Your task to perform on an android device: install app "Skype" Image 0: 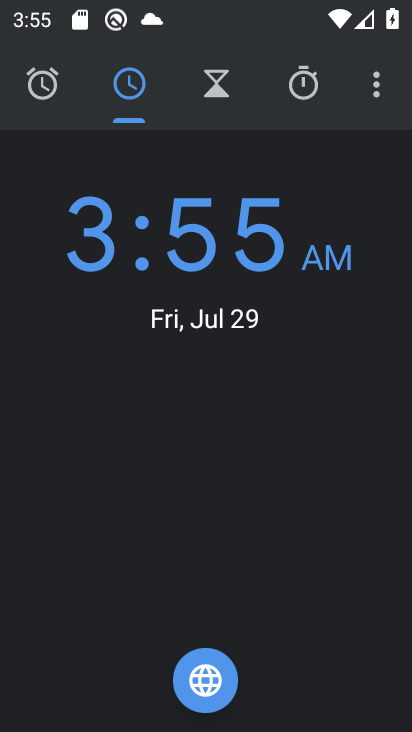
Step 0: press home button
Your task to perform on an android device: install app "Skype" Image 1: 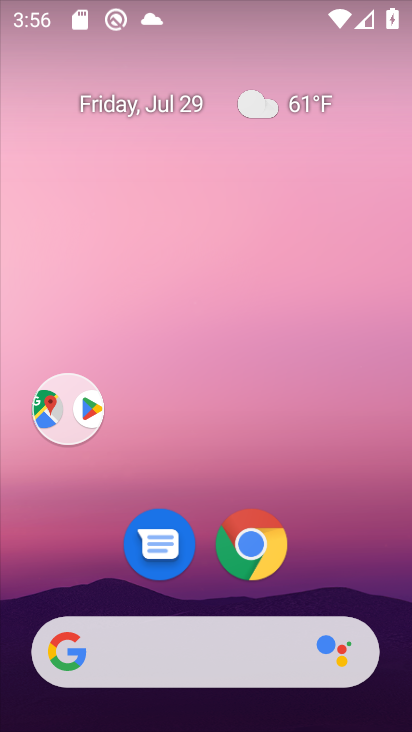
Step 1: drag from (220, 721) to (225, 292)
Your task to perform on an android device: install app "Skype" Image 2: 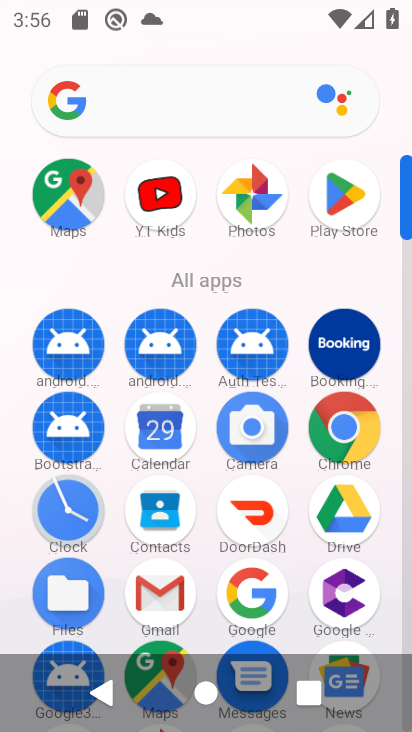
Step 2: click (339, 193)
Your task to perform on an android device: install app "Skype" Image 3: 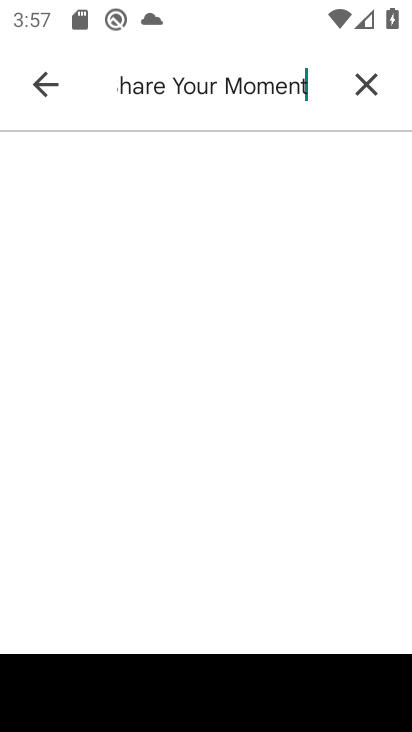
Step 3: click (363, 81)
Your task to perform on an android device: install app "Skype" Image 4: 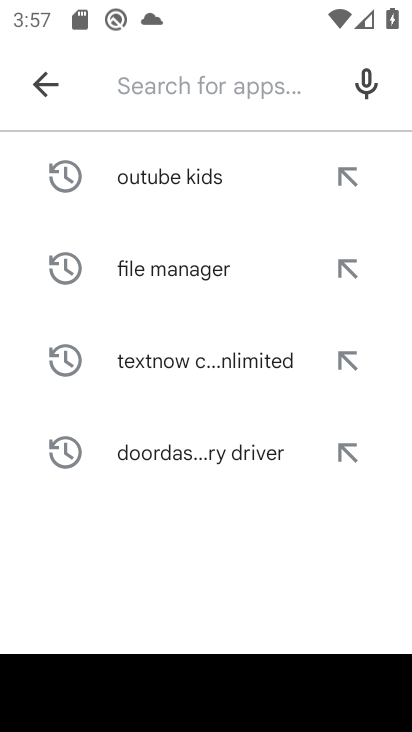
Step 4: type "Skype"
Your task to perform on an android device: install app "Skype" Image 5: 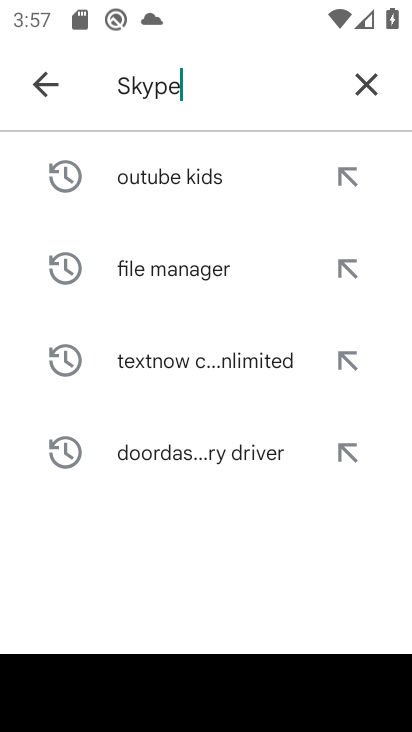
Step 5: type ""
Your task to perform on an android device: install app "Skype" Image 6: 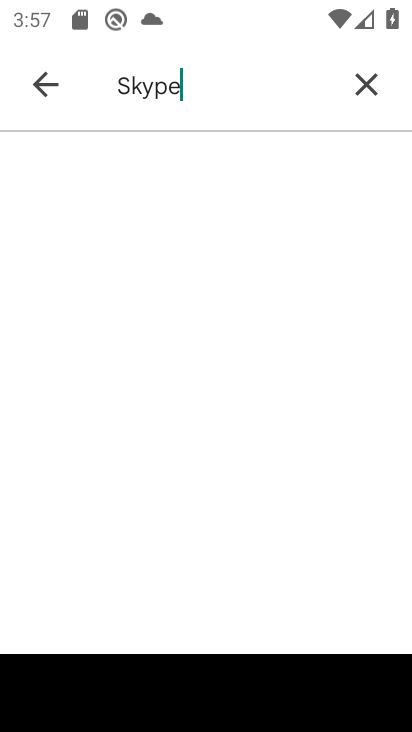
Step 6: task complete